Your task to perform on an android device: open sync settings in chrome Image 0: 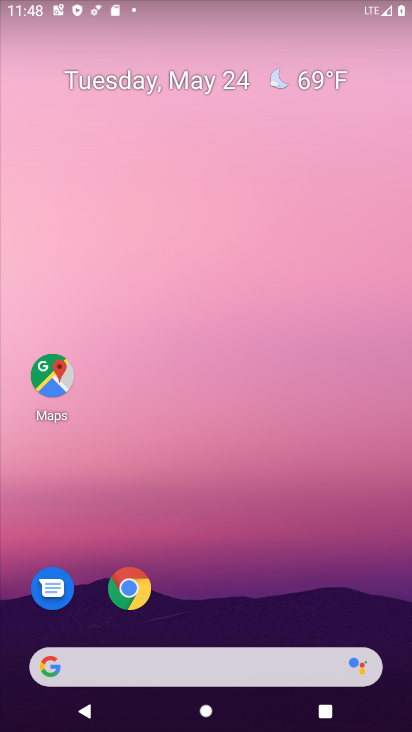
Step 0: click (122, 585)
Your task to perform on an android device: open sync settings in chrome Image 1: 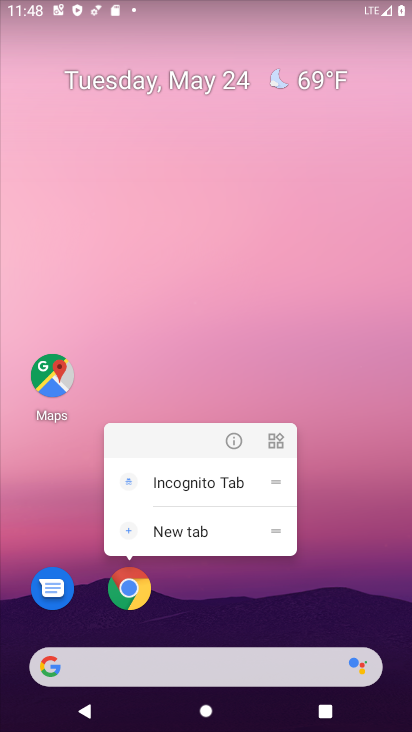
Step 1: click (125, 584)
Your task to perform on an android device: open sync settings in chrome Image 2: 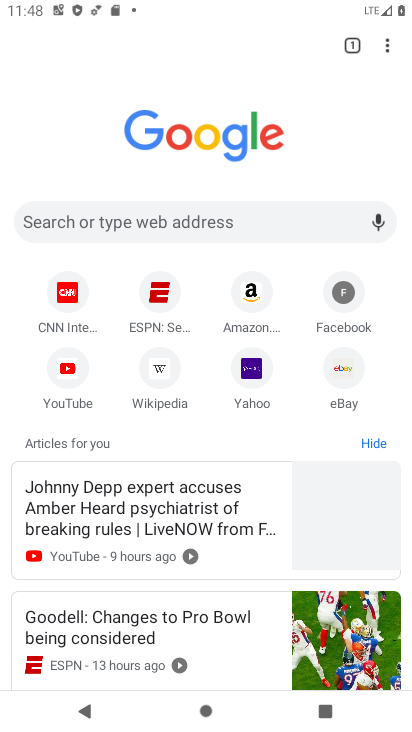
Step 2: click (385, 40)
Your task to perform on an android device: open sync settings in chrome Image 3: 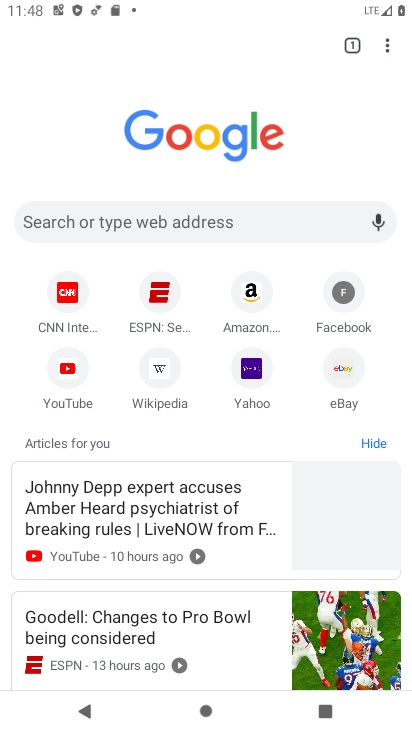
Step 3: click (386, 44)
Your task to perform on an android device: open sync settings in chrome Image 4: 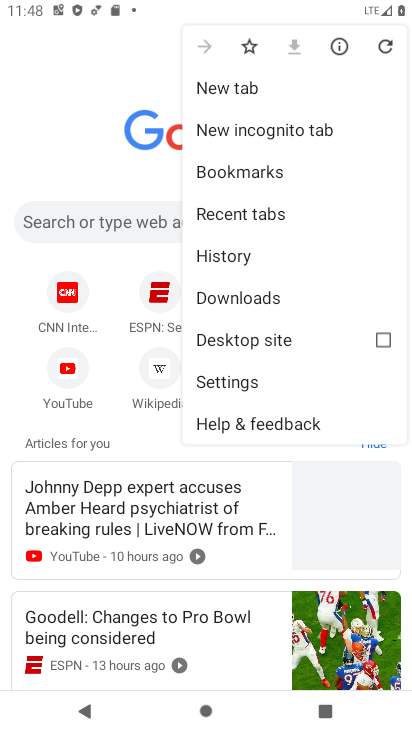
Step 4: click (259, 382)
Your task to perform on an android device: open sync settings in chrome Image 5: 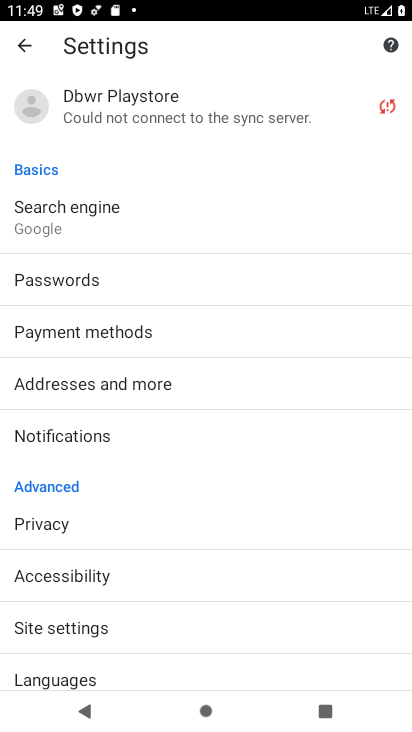
Step 5: click (193, 94)
Your task to perform on an android device: open sync settings in chrome Image 6: 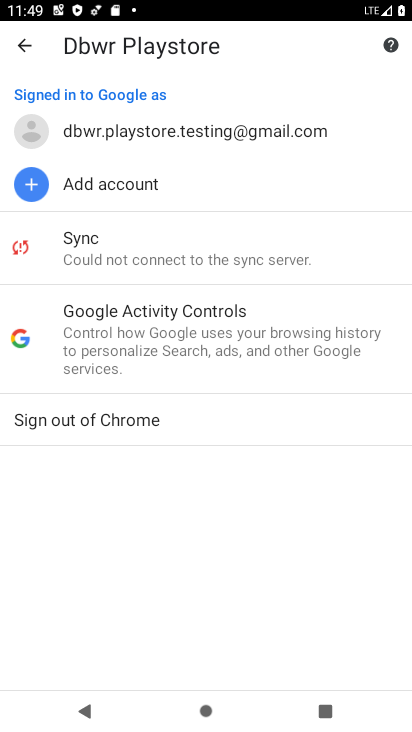
Step 6: click (115, 239)
Your task to perform on an android device: open sync settings in chrome Image 7: 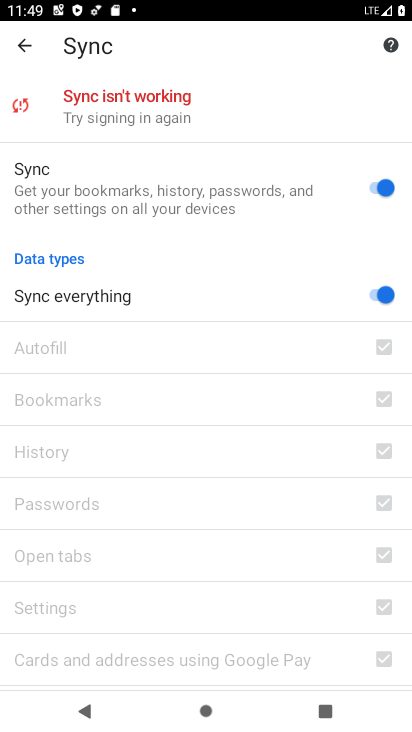
Step 7: task complete